Your task to perform on an android device: delete a single message in the gmail app Image 0: 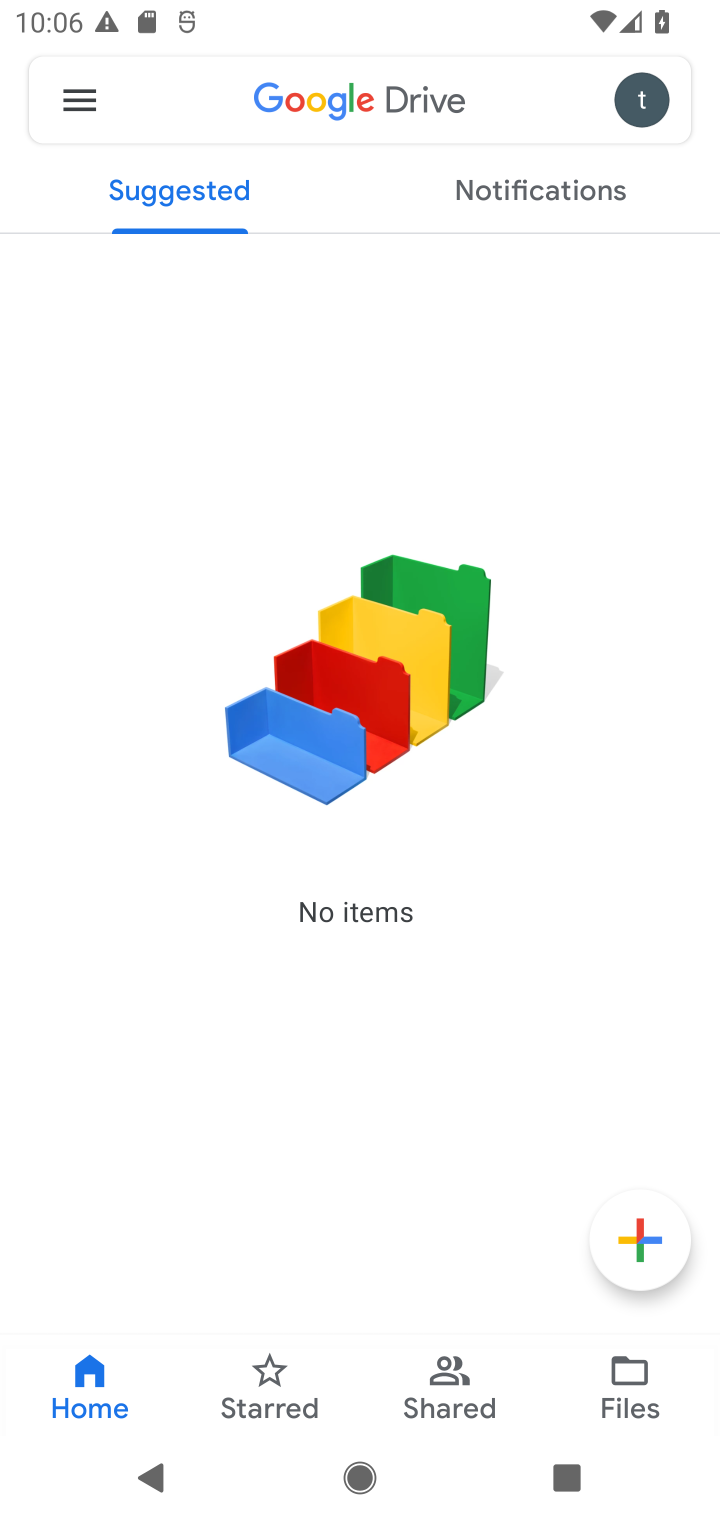
Step 0: press home button
Your task to perform on an android device: delete a single message in the gmail app Image 1: 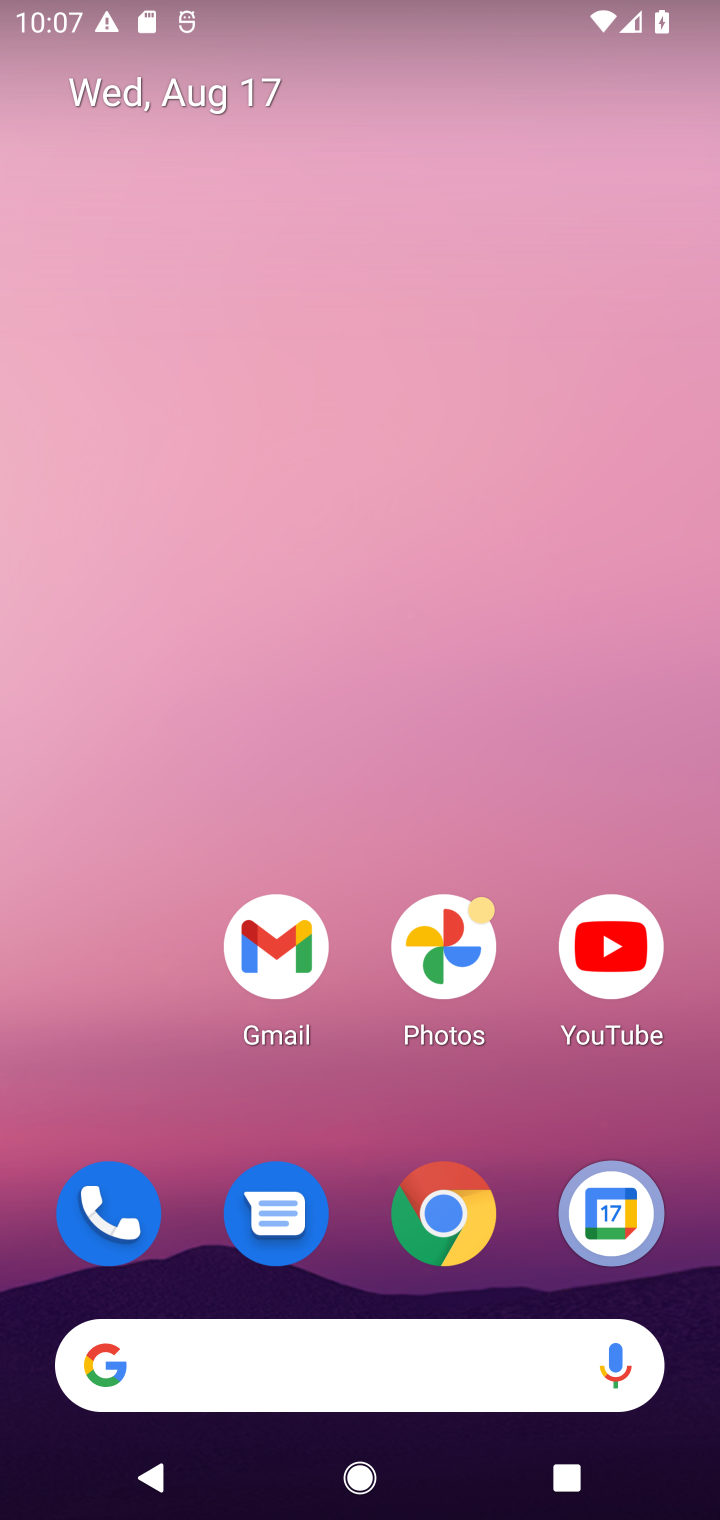
Step 1: drag from (634, 1296) to (298, 159)
Your task to perform on an android device: delete a single message in the gmail app Image 2: 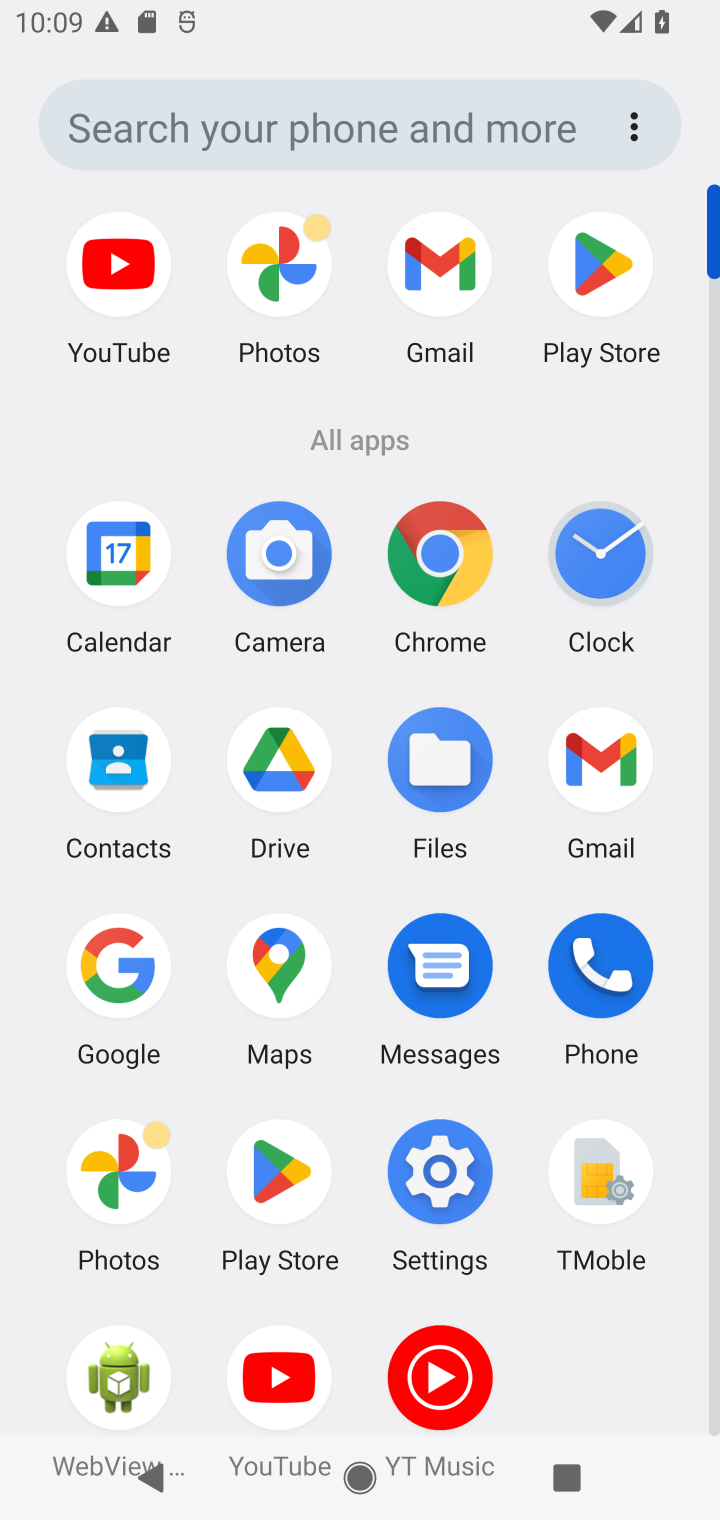
Step 2: click (590, 787)
Your task to perform on an android device: delete a single message in the gmail app Image 3: 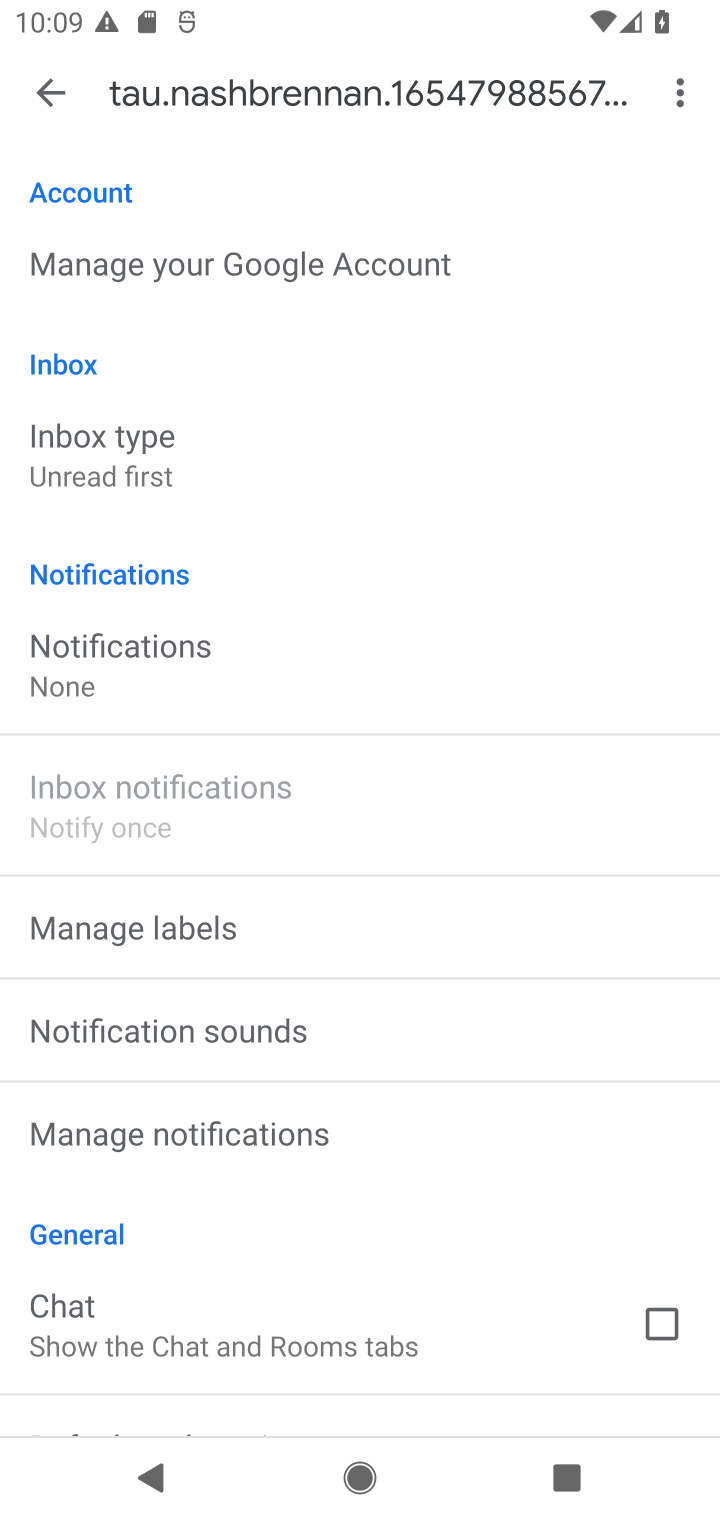
Step 3: task complete